Your task to perform on an android device: Go to accessibility settings Image 0: 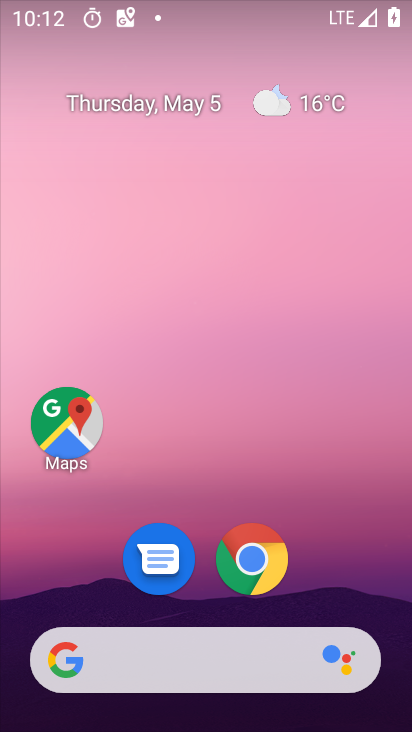
Step 0: drag from (209, 611) to (248, 39)
Your task to perform on an android device: Go to accessibility settings Image 1: 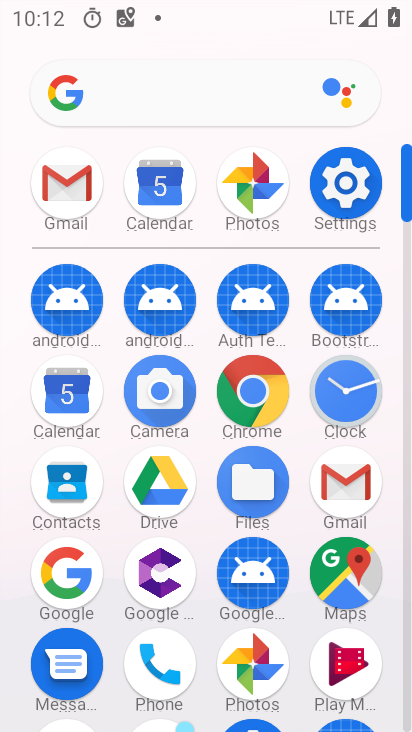
Step 1: click (341, 200)
Your task to perform on an android device: Go to accessibility settings Image 2: 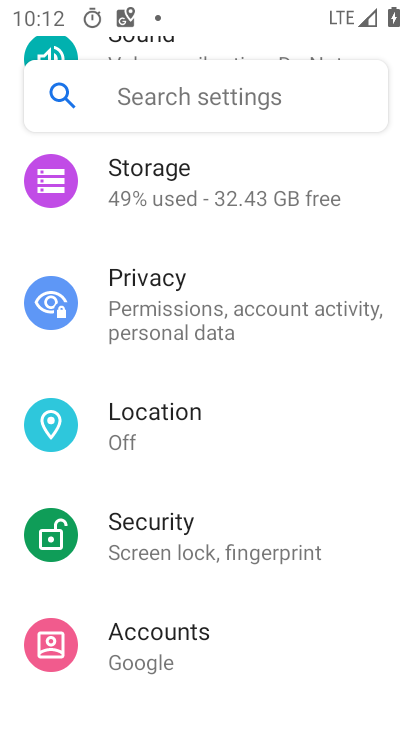
Step 2: drag from (201, 565) to (257, 320)
Your task to perform on an android device: Go to accessibility settings Image 3: 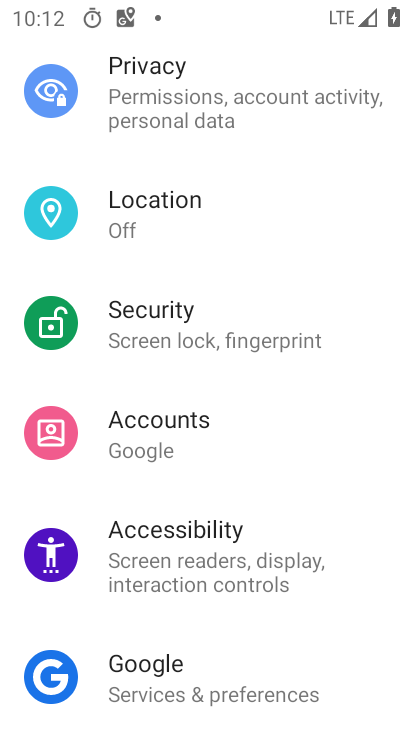
Step 3: click (186, 561)
Your task to perform on an android device: Go to accessibility settings Image 4: 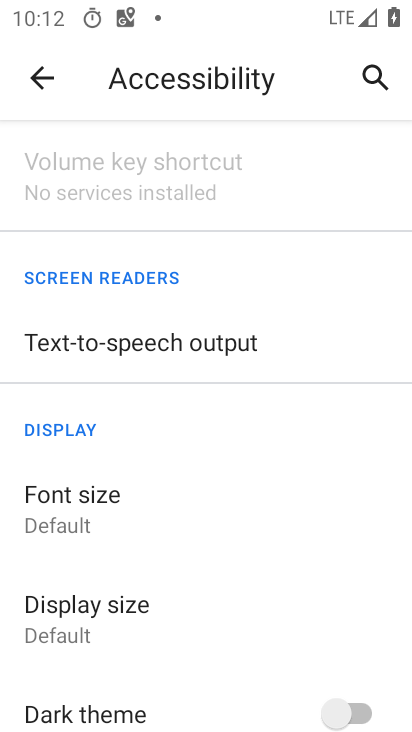
Step 4: task complete